Your task to perform on an android device: Is it going to rain tomorrow? Image 0: 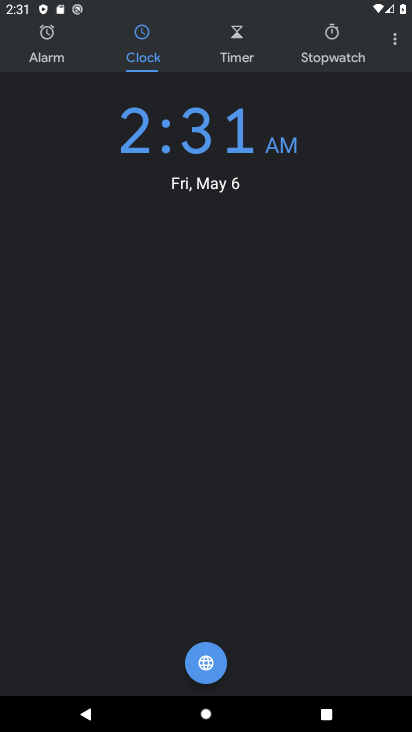
Step 0: press home button
Your task to perform on an android device: Is it going to rain tomorrow? Image 1: 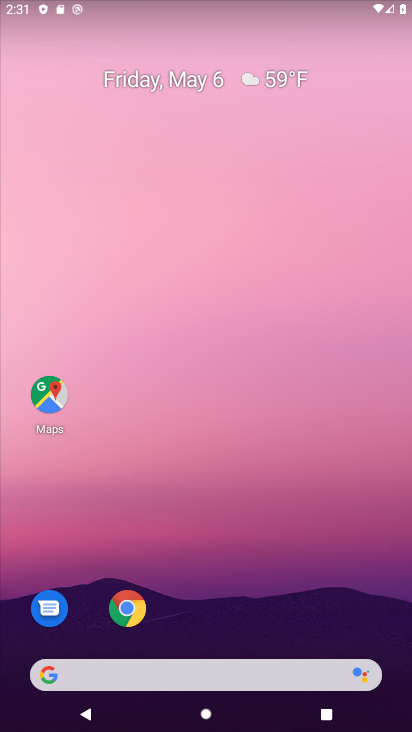
Step 1: click (267, 73)
Your task to perform on an android device: Is it going to rain tomorrow? Image 2: 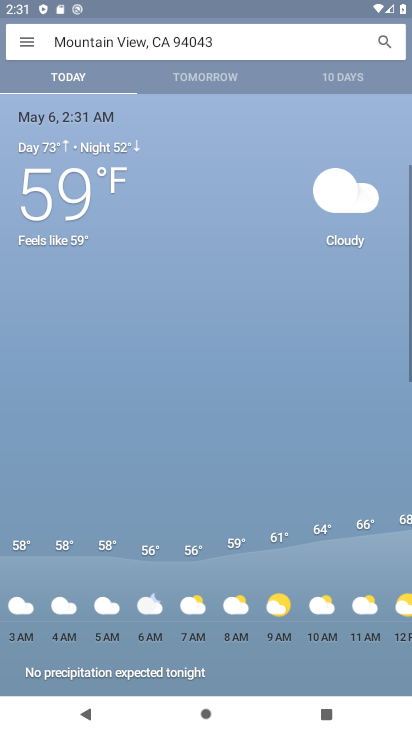
Step 2: click (194, 76)
Your task to perform on an android device: Is it going to rain tomorrow? Image 3: 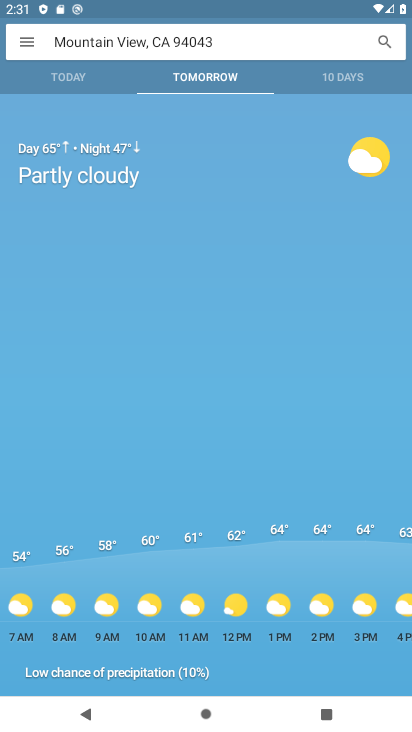
Step 3: task complete